Your task to perform on an android device: move an email to a new category in the gmail app Image 0: 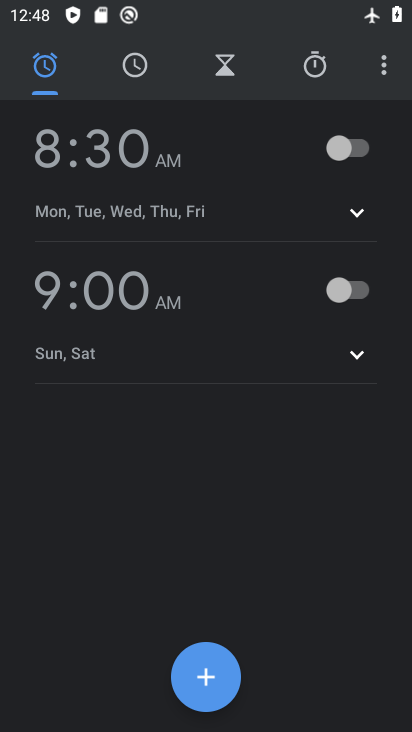
Step 0: press home button
Your task to perform on an android device: move an email to a new category in the gmail app Image 1: 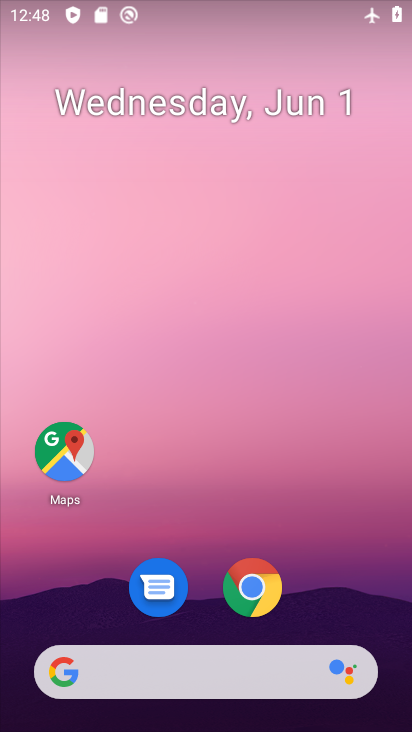
Step 1: drag from (221, 446) to (188, 24)
Your task to perform on an android device: move an email to a new category in the gmail app Image 2: 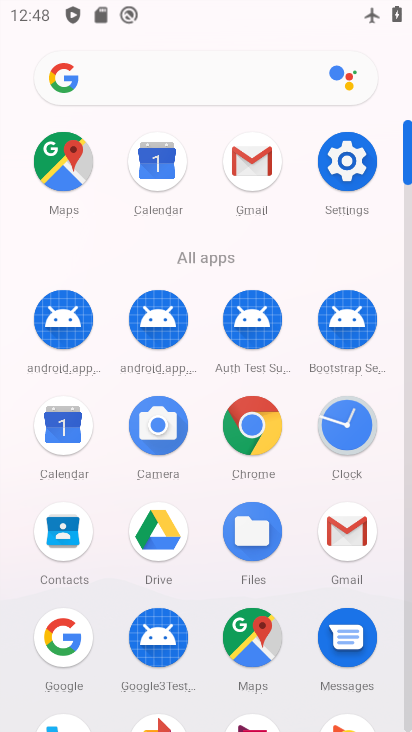
Step 2: click (256, 161)
Your task to perform on an android device: move an email to a new category in the gmail app Image 3: 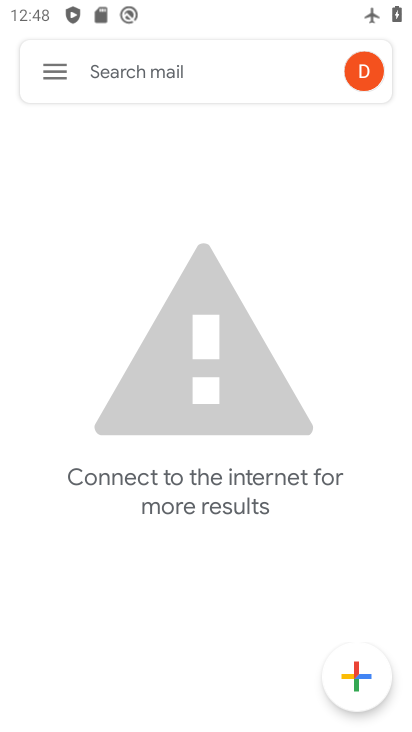
Step 3: click (50, 66)
Your task to perform on an android device: move an email to a new category in the gmail app Image 4: 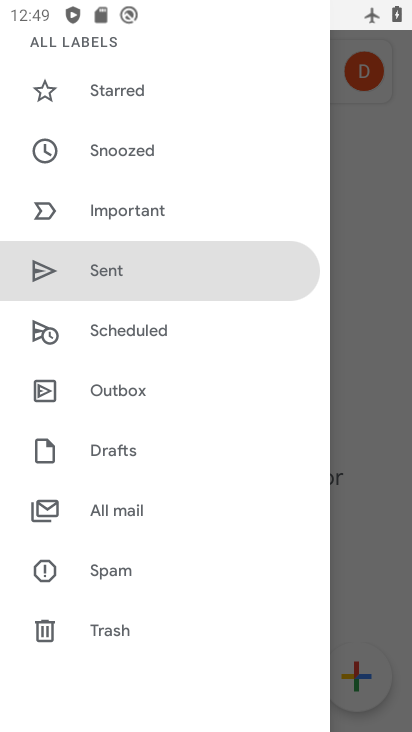
Step 4: click (106, 509)
Your task to perform on an android device: move an email to a new category in the gmail app Image 5: 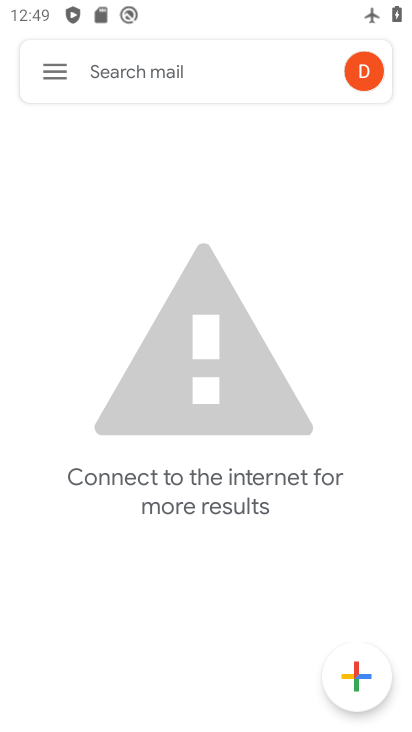
Step 5: task complete